Your task to perform on an android device: turn pop-ups off in chrome Image 0: 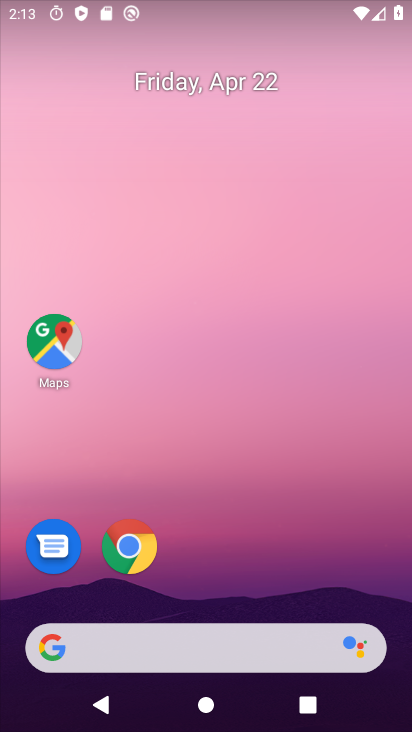
Step 0: drag from (201, 572) to (207, 129)
Your task to perform on an android device: turn pop-ups off in chrome Image 1: 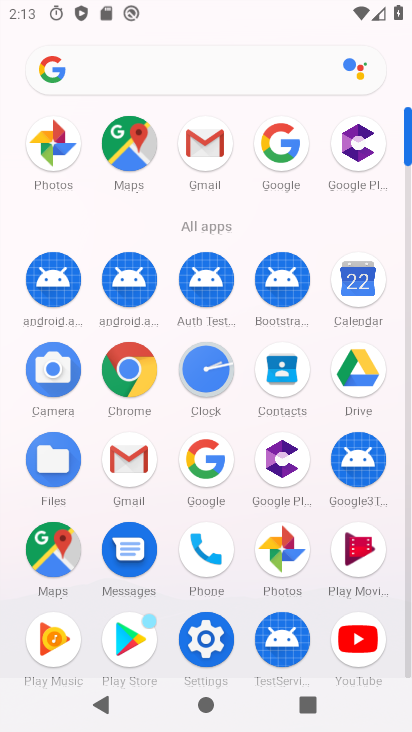
Step 1: click (121, 359)
Your task to perform on an android device: turn pop-ups off in chrome Image 2: 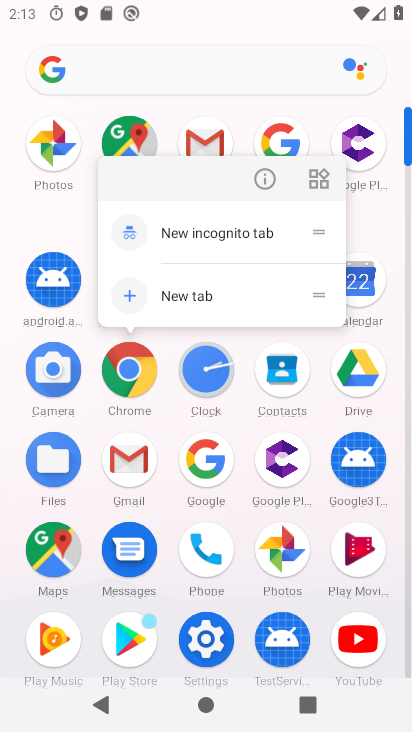
Step 2: click (260, 175)
Your task to perform on an android device: turn pop-ups off in chrome Image 3: 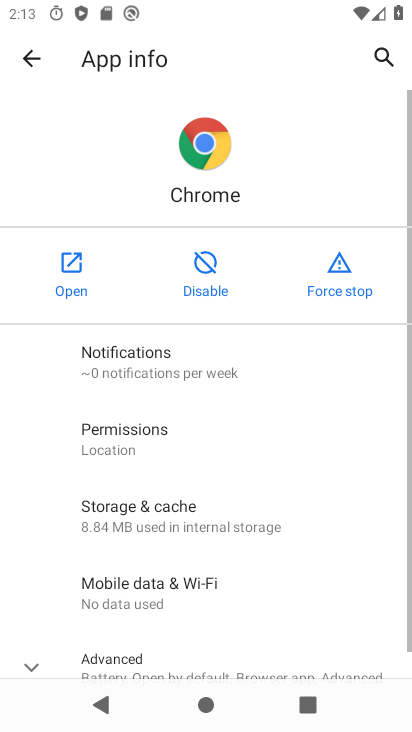
Step 3: click (73, 266)
Your task to perform on an android device: turn pop-ups off in chrome Image 4: 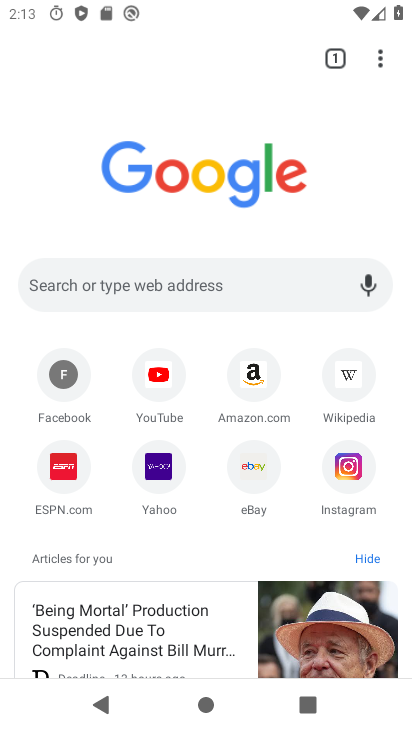
Step 4: drag from (380, 61) to (272, 484)
Your task to perform on an android device: turn pop-ups off in chrome Image 5: 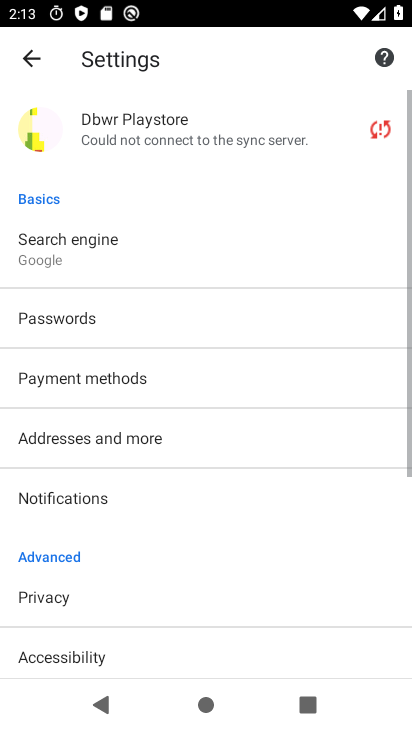
Step 5: drag from (119, 591) to (237, 172)
Your task to perform on an android device: turn pop-ups off in chrome Image 6: 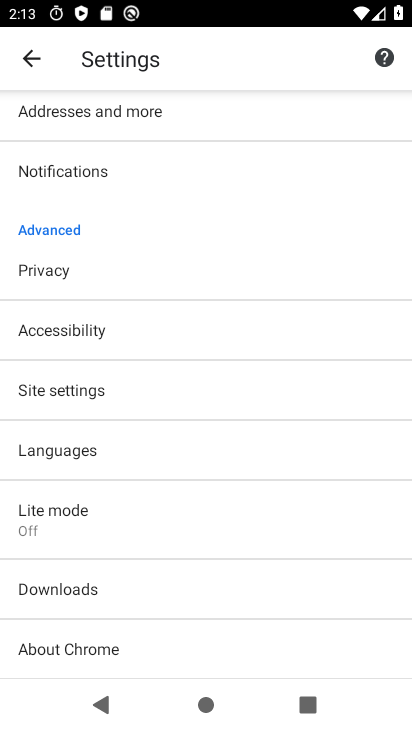
Step 6: click (96, 393)
Your task to perform on an android device: turn pop-ups off in chrome Image 7: 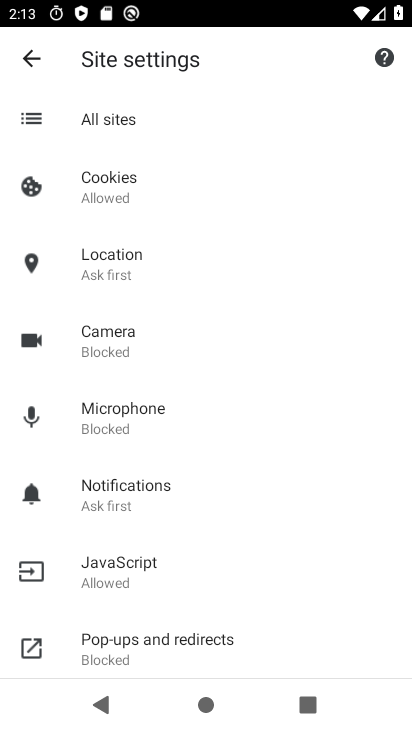
Step 7: click (175, 643)
Your task to perform on an android device: turn pop-ups off in chrome Image 8: 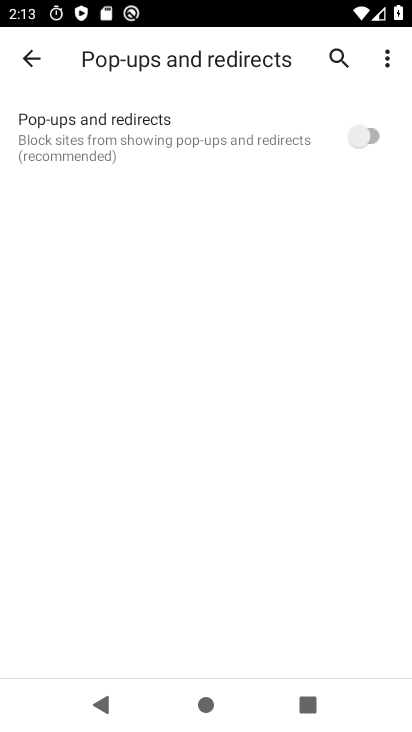
Step 8: task complete